Your task to perform on an android device: toggle priority inbox in the gmail app Image 0: 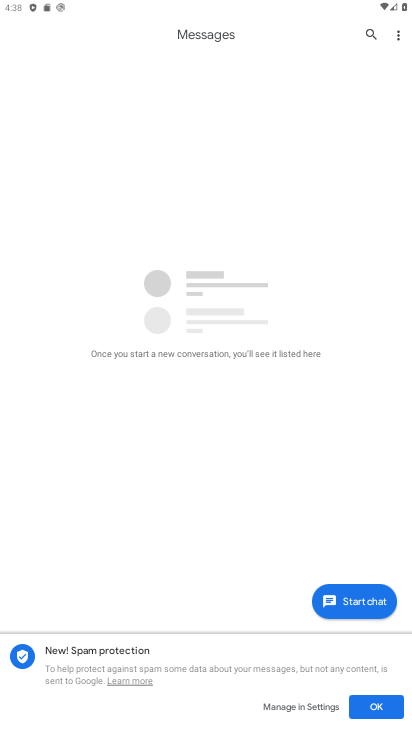
Step 0: press home button
Your task to perform on an android device: toggle priority inbox in the gmail app Image 1: 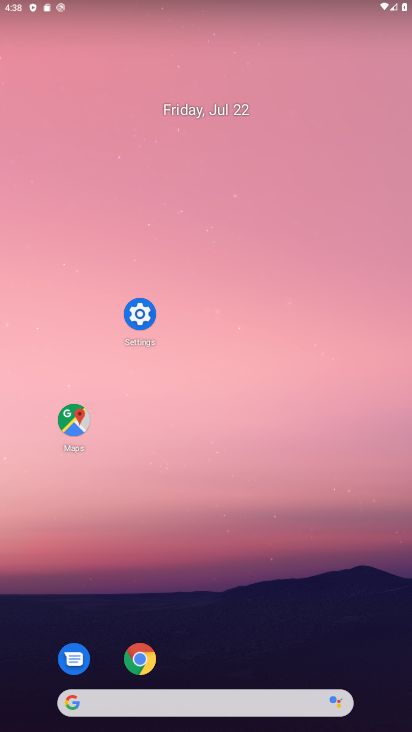
Step 1: drag from (207, 583) to (227, 136)
Your task to perform on an android device: toggle priority inbox in the gmail app Image 2: 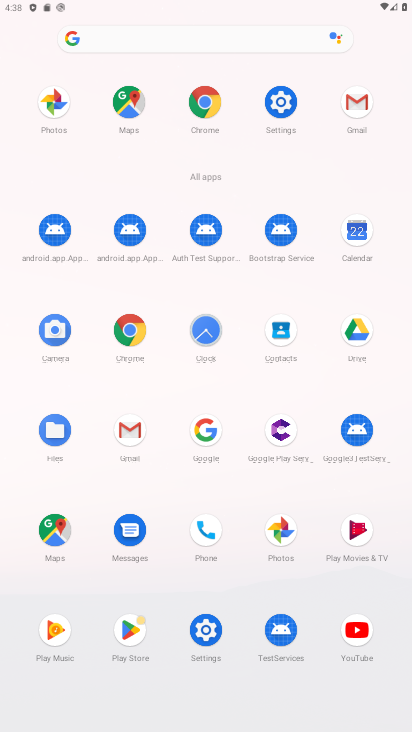
Step 2: drag from (124, 442) to (60, 183)
Your task to perform on an android device: toggle priority inbox in the gmail app Image 3: 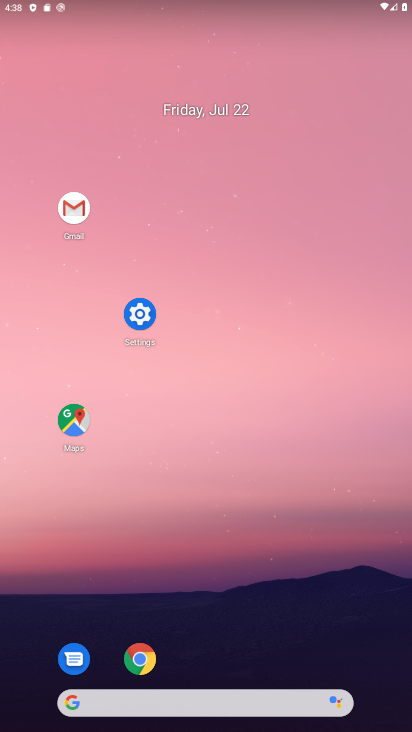
Step 3: click (90, 211)
Your task to perform on an android device: toggle priority inbox in the gmail app Image 4: 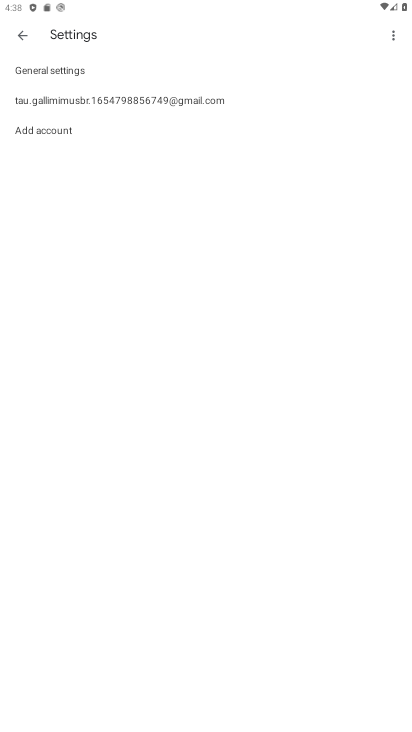
Step 4: click (72, 96)
Your task to perform on an android device: toggle priority inbox in the gmail app Image 5: 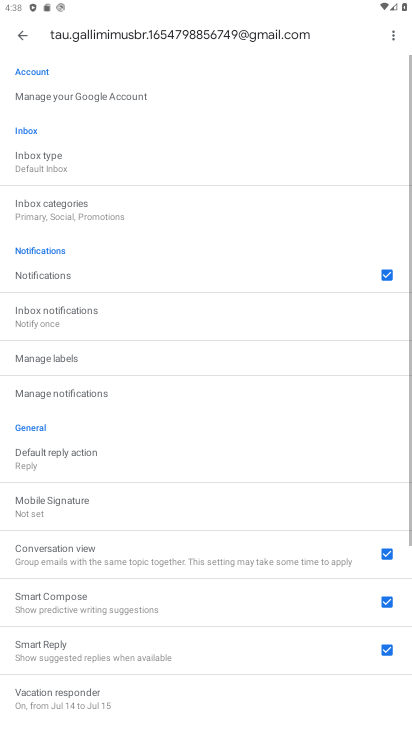
Step 5: click (94, 147)
Your task to perform on an android device: toggle priority inbox in the gmail app Image 6: 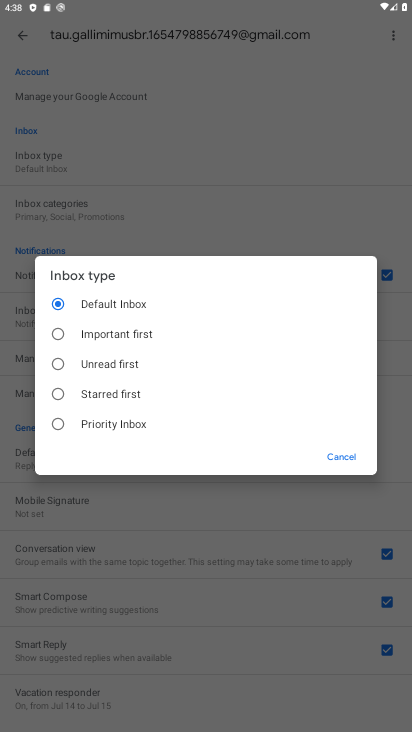
Step 6: click (45, 429)
Your task to perform on an android device: toggle priority inbox in the gmail app Image 7: 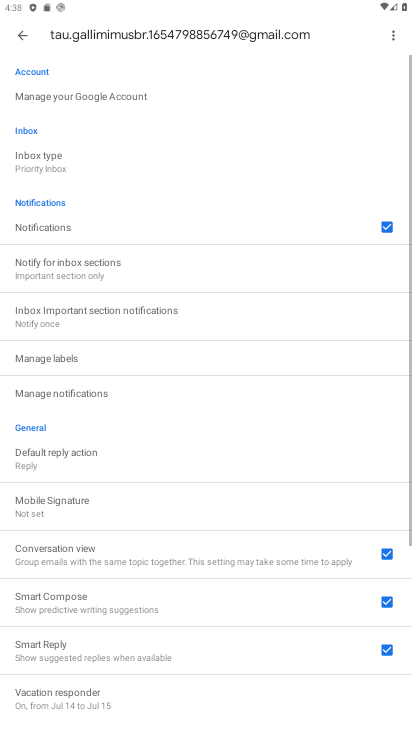
Step 7: task complete